Your task to perform on an android device: Search for Mexican restaurants on Maps Image 0: 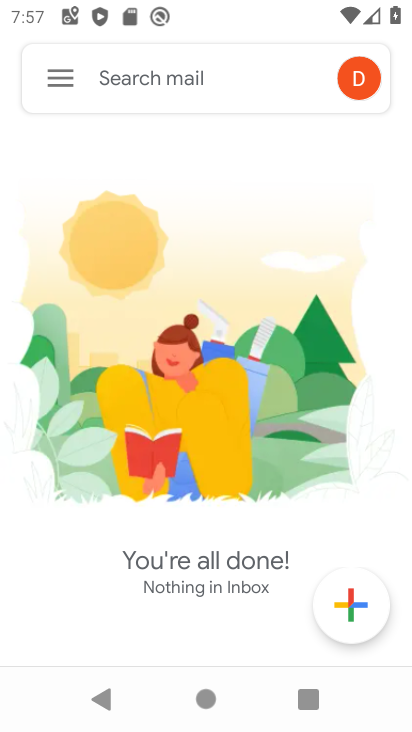
Step 0: press home button
Your task to perform on an android device: Search for Mexican restaurants on Maps Image 1: 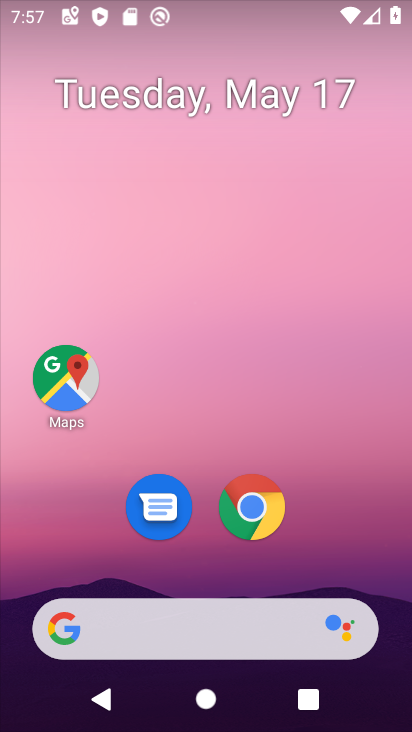
Step 1: drag from (234, 687) to (121, 60)
Your task to perform on an android device: Search for Mexican restaurants on Maps Image 2: 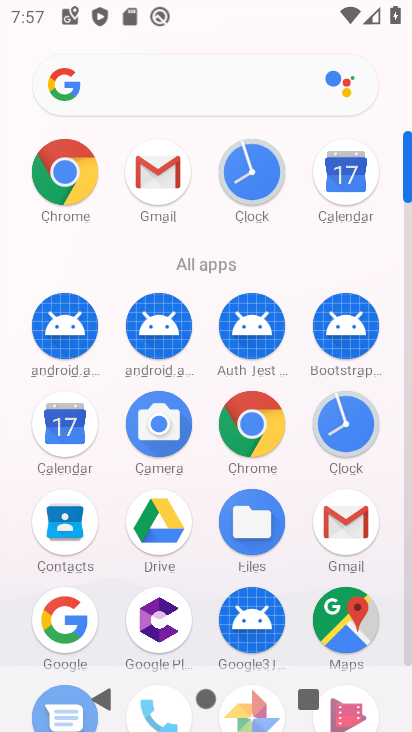
Step 2: click (344, 603)
Your task to perform on an android device: Search for Mexican restaurants on Maps Image 3: 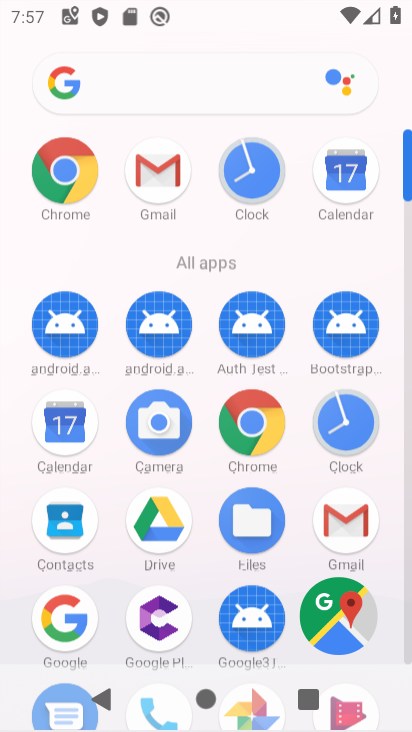
Step 3: click (344, 602)
Your task to perform on an android device: Search for Mexican restaurants on Maps Image 4: 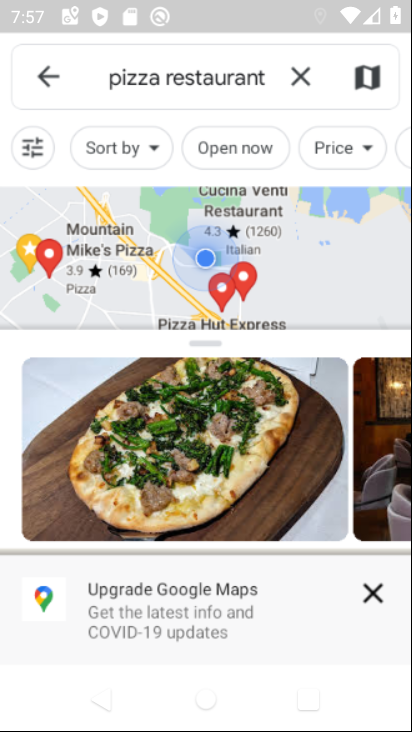
Step 4: click (337, 606)
Your task to perform on an android device: Search for Mexican restaurants on Maps Image 5: 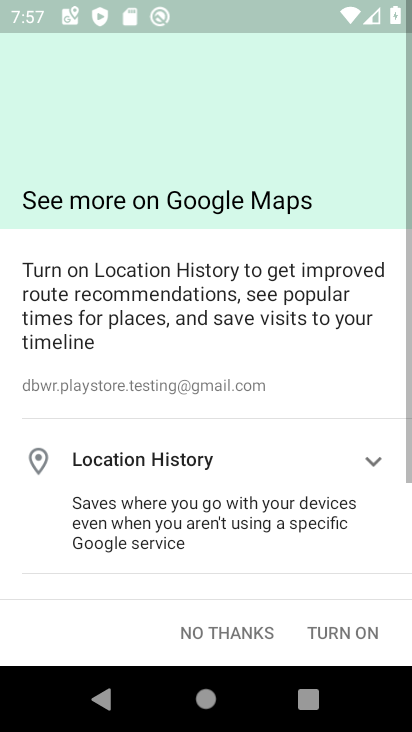
Step 5: click (299, 75)
Your task to perform on an android device: Search for Mexican restaurants on Maps Image 6: 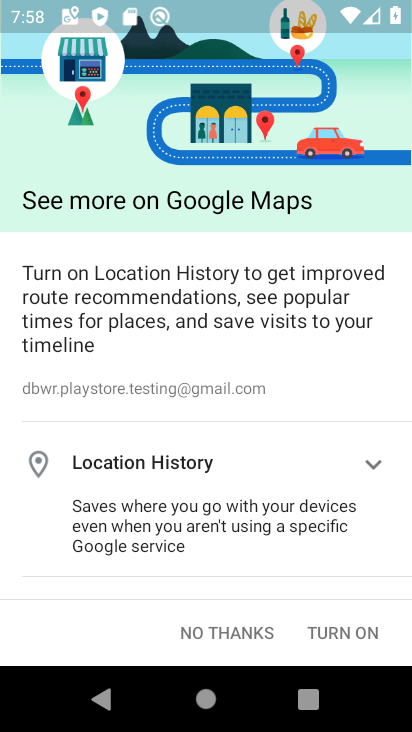
Step 6: click (234, 627)
Your task to perform on an android device: Search for Mexican restaurants on Maps Image 7: 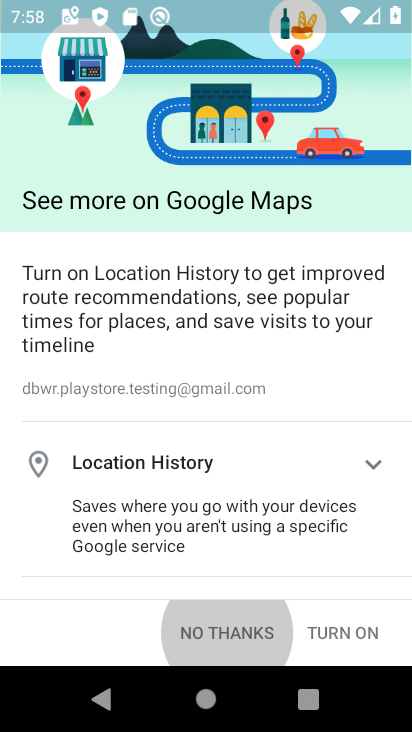
Step 7: click (240, 645)
Your task to perform on an android device: Search for Mexican restaurants on Maps Image 8: 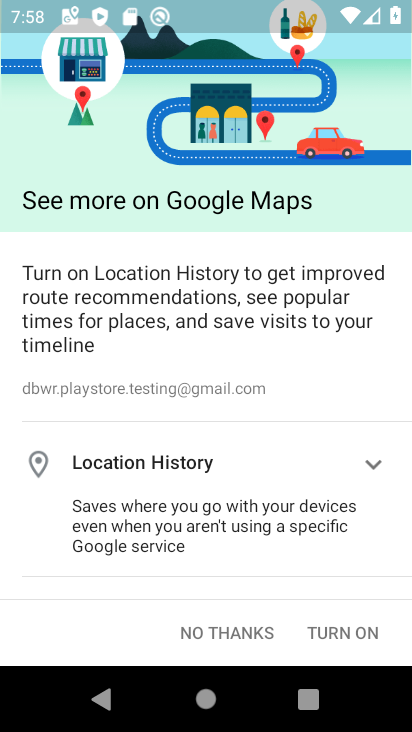
Step 8: click (241, 644)
Your task to perform on an android device: Search for Mexican restaurants on Maps Image 9: 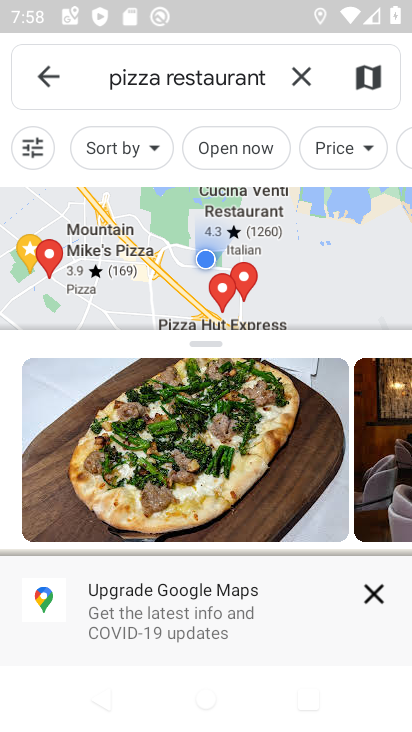
Step 9: click (304, 72)
Your task to perform on an android device: Search for Mexican restaurants on Maps Image 10: 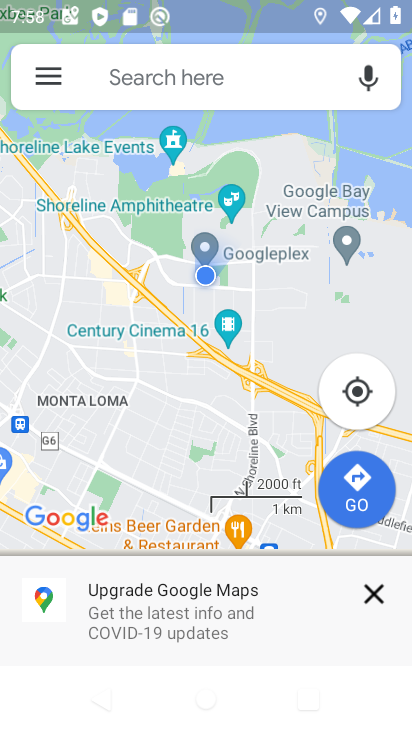
Step 10: click (115, 70)
Your task to perform on an android device: Search for Mexican restaurants on Maps Image 11: 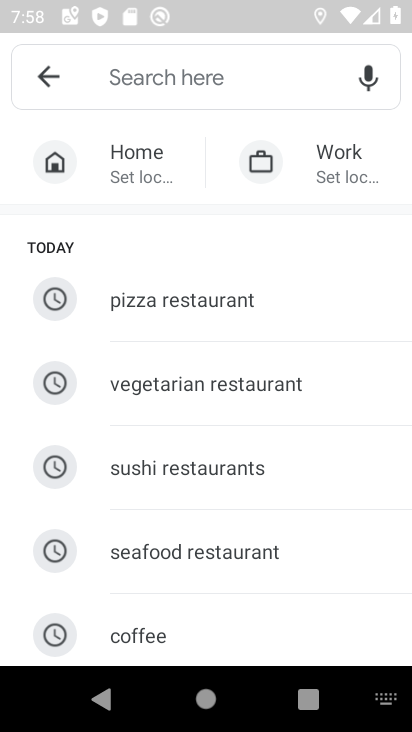
Step 11: type "mexican restaurants"
Your task to perform on an android device: Search for Mexican restaurants on Maps Image 12: 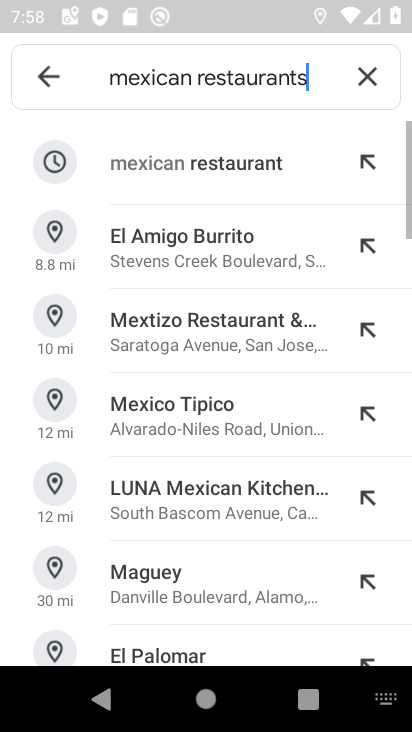
Step 12: click (159, 177)
Your task to perform on an android device: Search for Mexican restaurants on Maps Image 13: 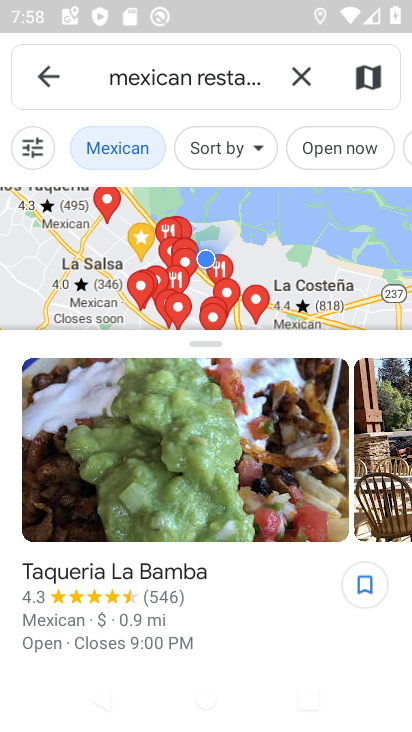
Step 13: task complete